Your task to perform on an android device: Open sound settings Image 0: 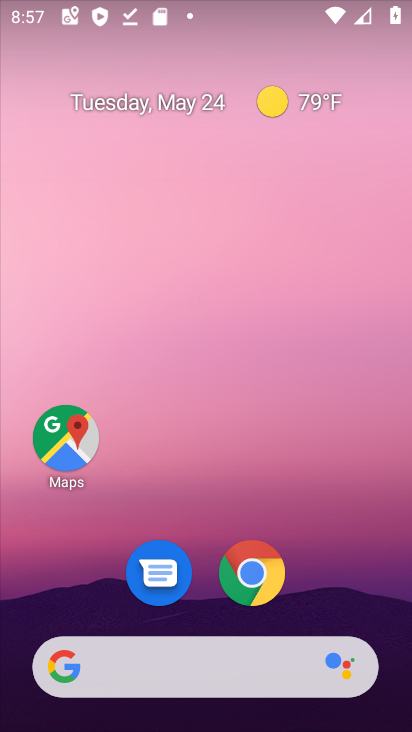
Step 0: drag from (350, 679) to (272, 107)
Your task to perform on an android device: Open sound settings Image 1: 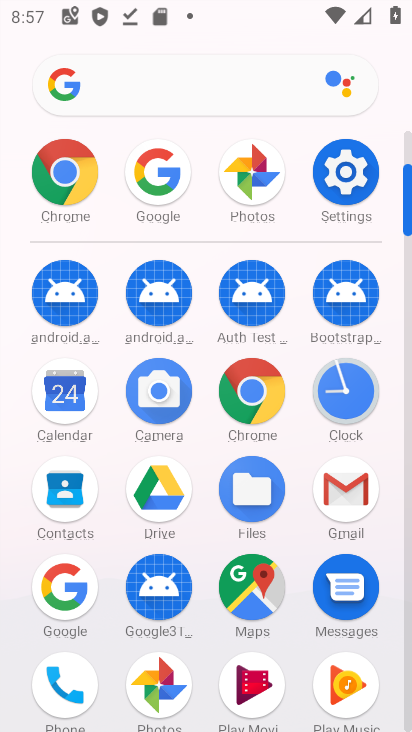
Step 1: click (330, 166)
Your task to perform on an android device: Open sound settings Image 2: 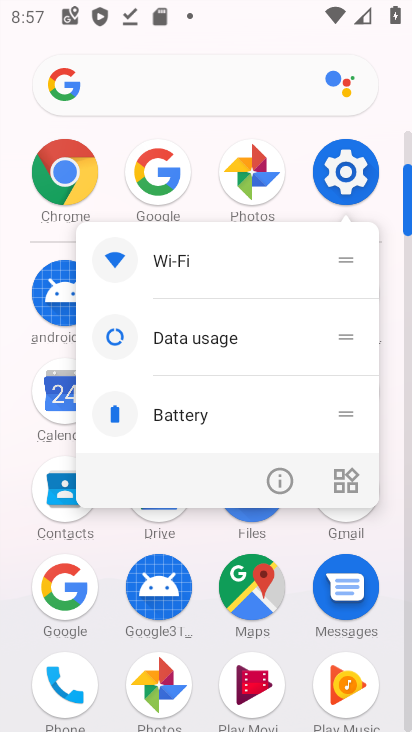
Step 2: click (369, 153)
Your task to perform on an android device: Open sound settings Image 3: 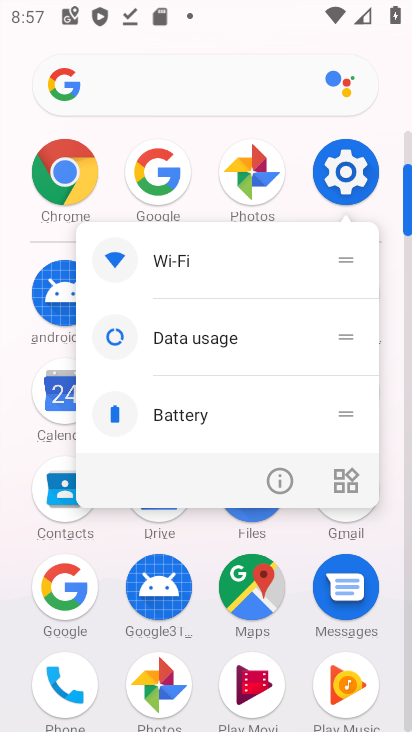
Step 3: click (328, 181)
Your task to perform on an android device: Open sound settings Image 4: 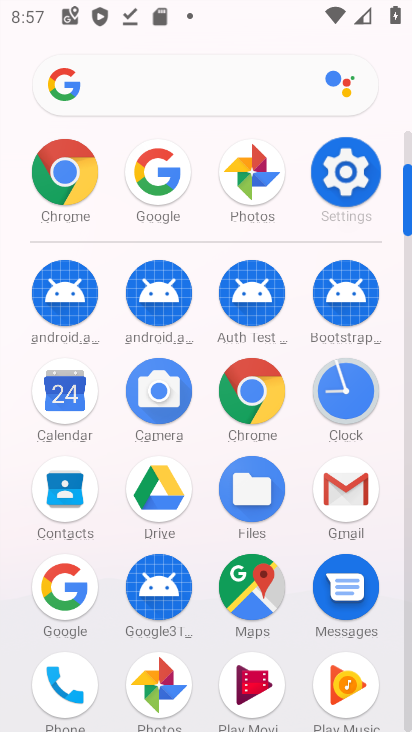
Step 4: click (331, 178)
Your task to perform on an android device: Open sound settings Image 5: 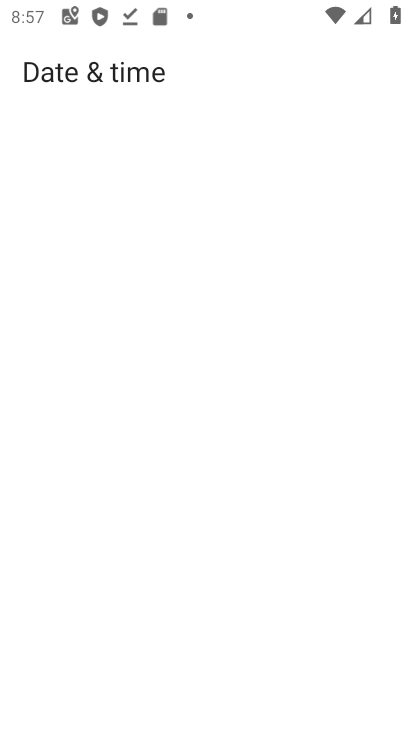
Step 5: click (337, 175)
Your task to perform on an android device: Open sound settings Image 6: 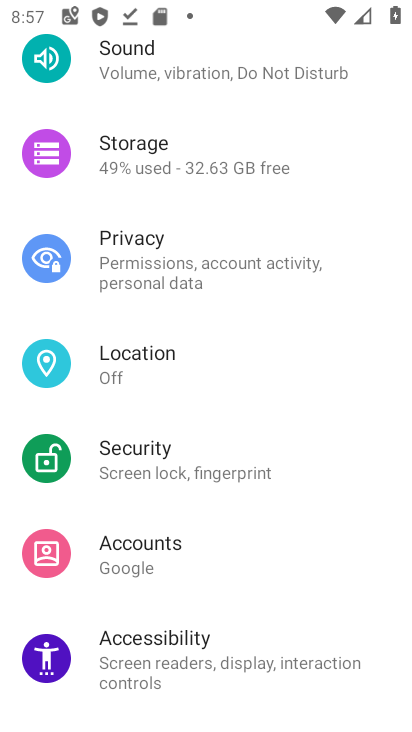
Step 6: click (153, 89)
Your task to perform on an android device: Open sound settings Image 7: 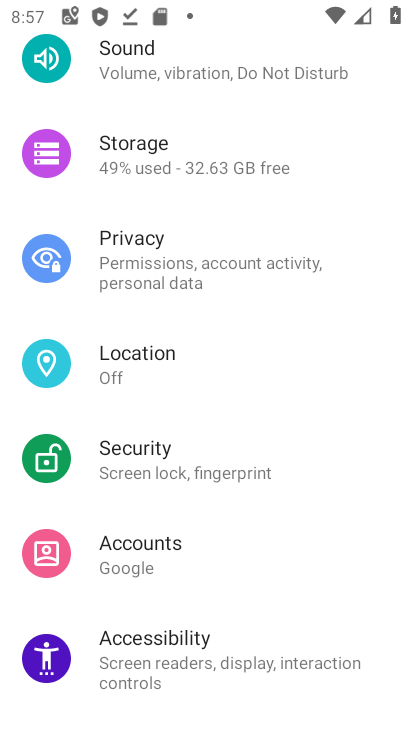
Step 7: click (147, 74)
Your task to perform on an android device: Open sound settings Image 8: 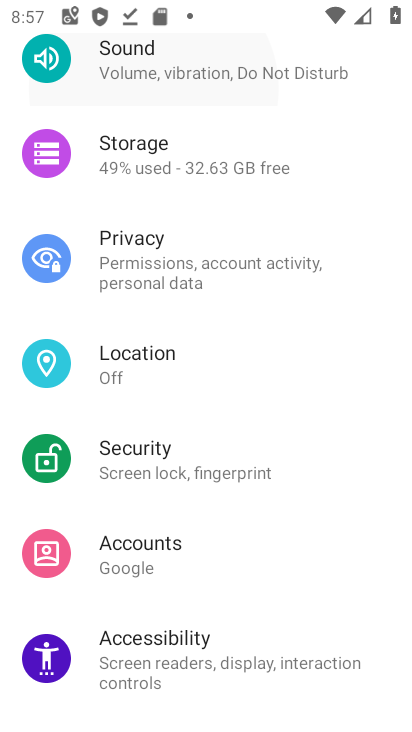
Step 8: click (145, 65)
Your task to perform on an android device: Open sound settings Image 9: 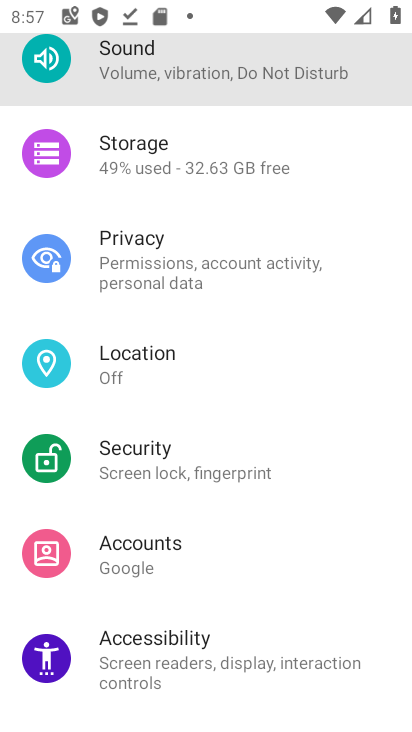
Step 9: click (145, 65)
Your task to perform on an android device: Open sound settings Image 10: 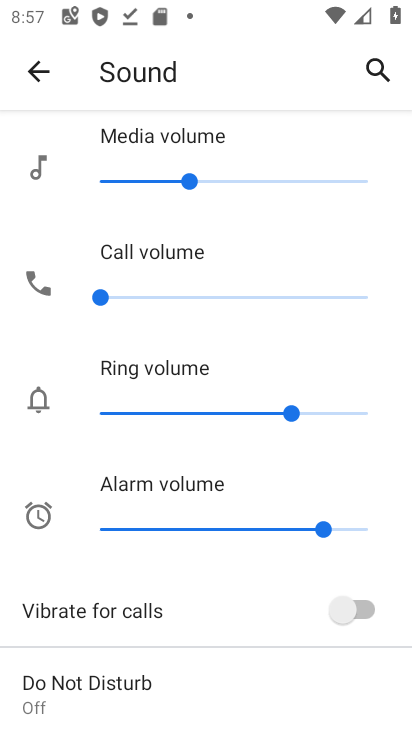
Step 10: task complete